Your task to perform on an android device: Go to internet settings Image 0: 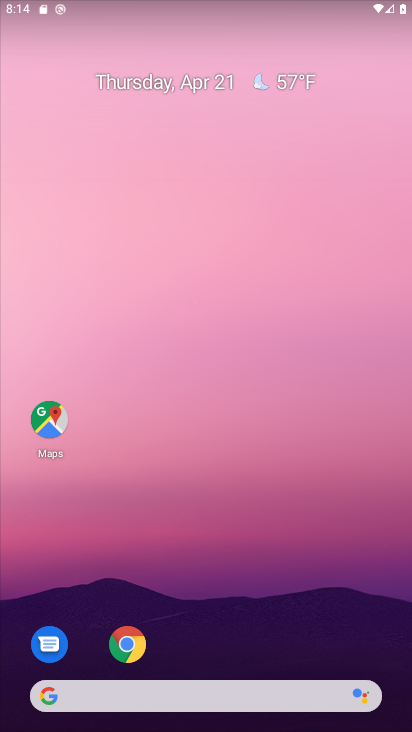
Step 0: drag from (219, 618) to (190, 66)
Your task to perform on an android device: Go to internet settings Image 1: 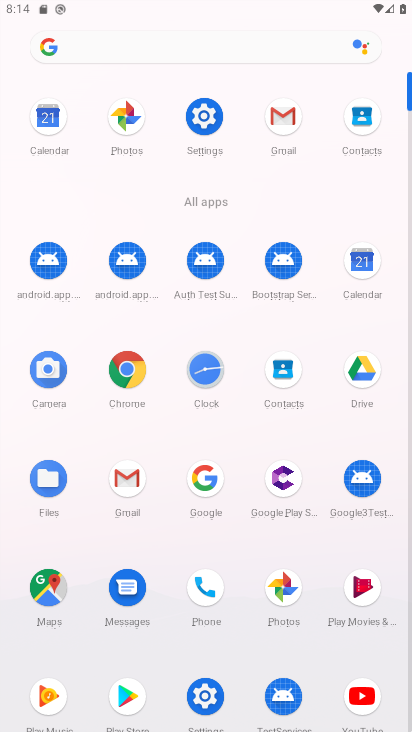
Step 1: click (205, 115)
Your task to perform on an android device: Go to internet settings Image 2: 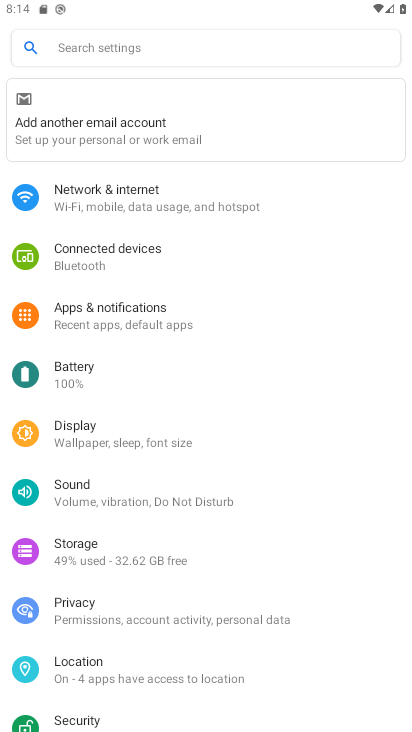
Step 2: click (139, 193)
Your task to perform on an android device: Go to internet settings Image 3: 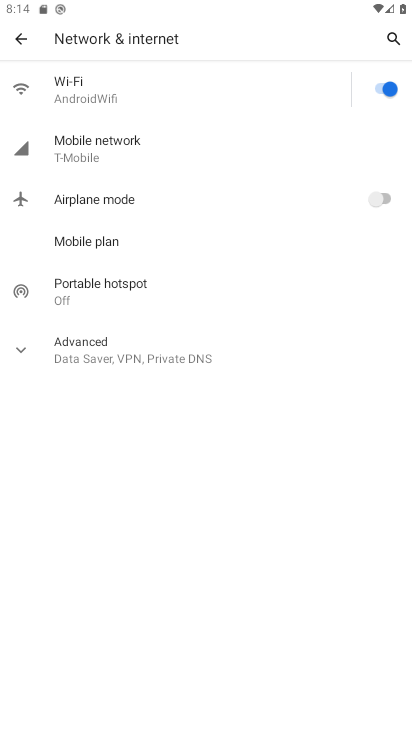
Step 3: task complete